Your task to perform on an android device: Open Youtube and go to "Your channel" Image 0: 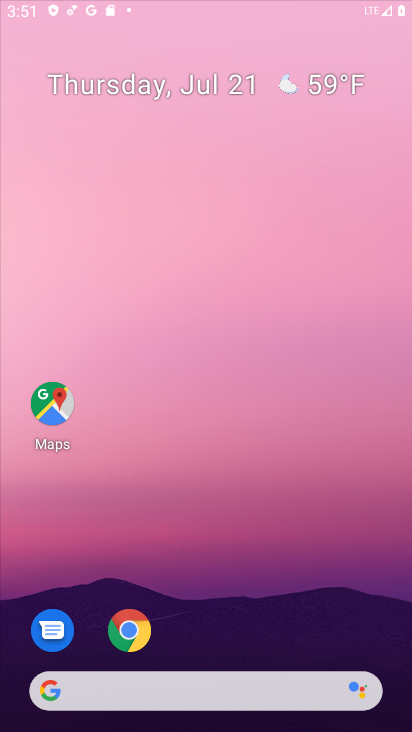
Step 0: click (190, 196)
Your task to perform on an android device: Open Youtube and go to "Your channel" Image 1: 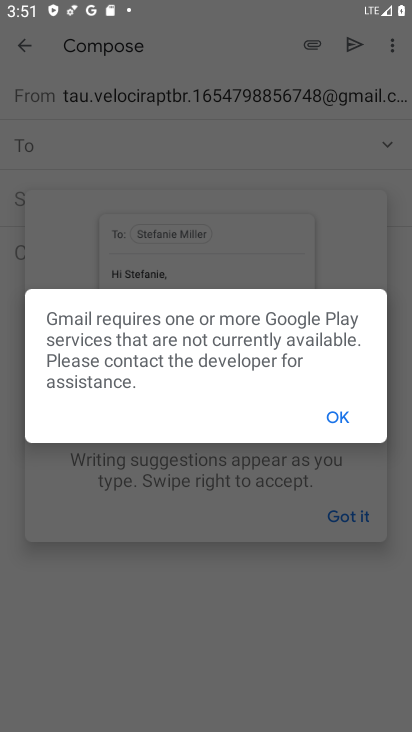
Step 1: click (323, 412)
Your task to perform on an android device: Open Youtube and go to "Your channel" Image 2: 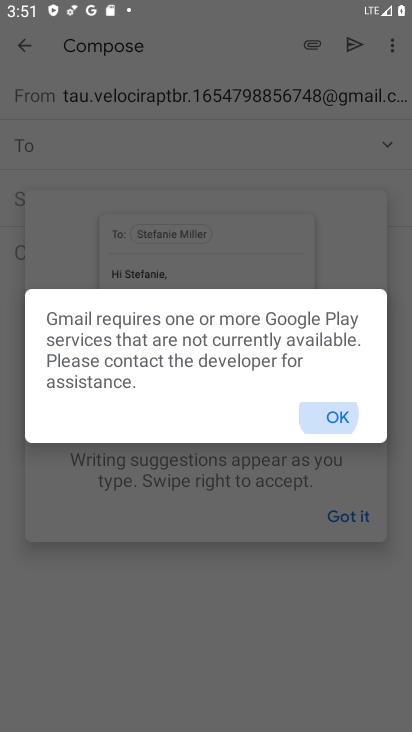
Step 2: click (323, 409)
Your task to perform on an android device: Open Youtube and go to "Your channel" Image 3: 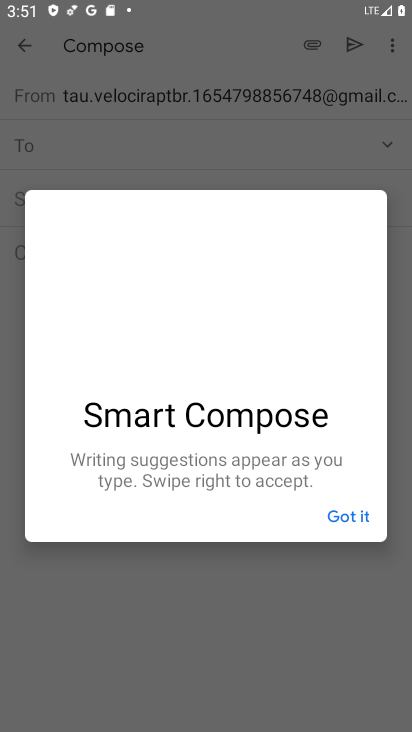
Step 3: click (338, 503)
Your task to perform on an android device: Open Youtube and go to "Your channel" Image 4: 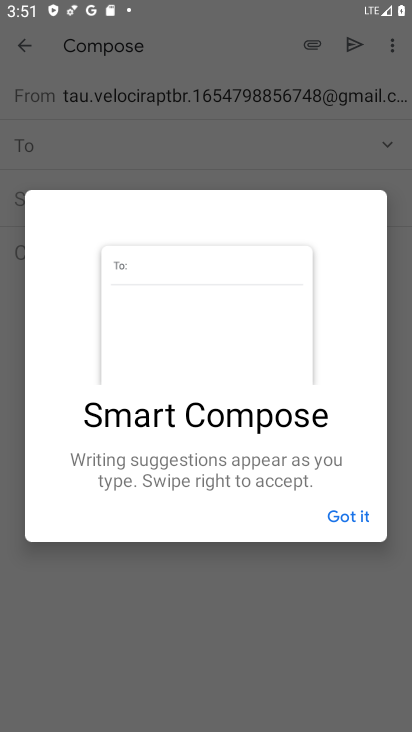
Step 4: click (338, 503)
Your task to perform on an android device: Open Youtube and go to "Your channel" Image 5: 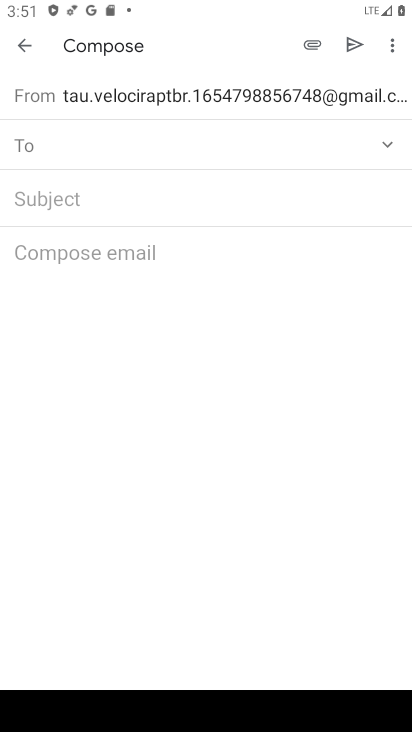
Step 5: click (26, 43)
Your task to perform on an android device: Open Youtube and go to "Your channel" Image 6: 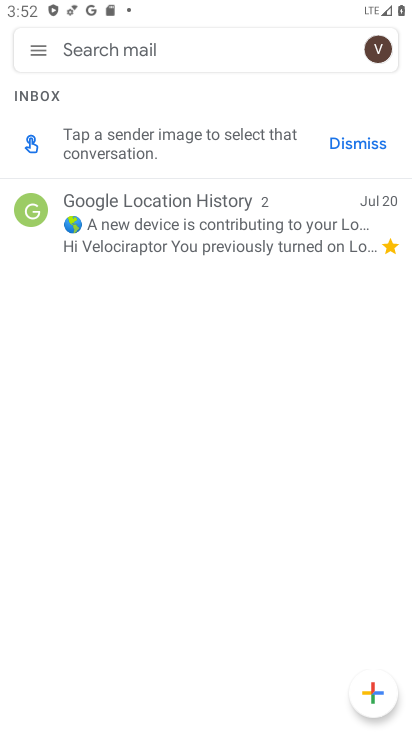
Step 6: press back button
Your task to perform on an android device: Open Youtube and go to "Your channel" Image 7: 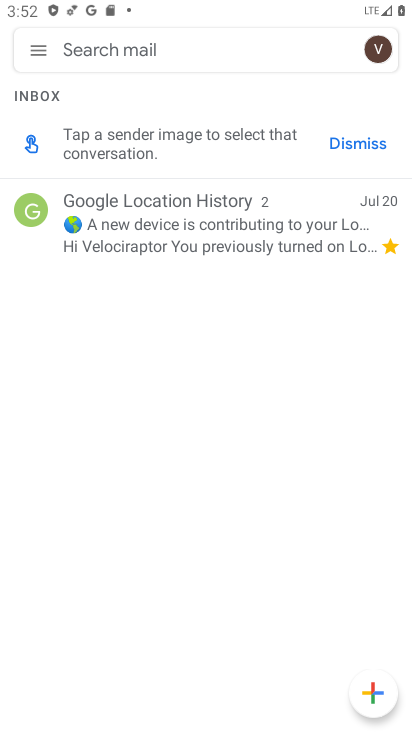
Step 7: press back button
Your task to perform on an android device: Open Youtube and go to "Your channel" Image 8: 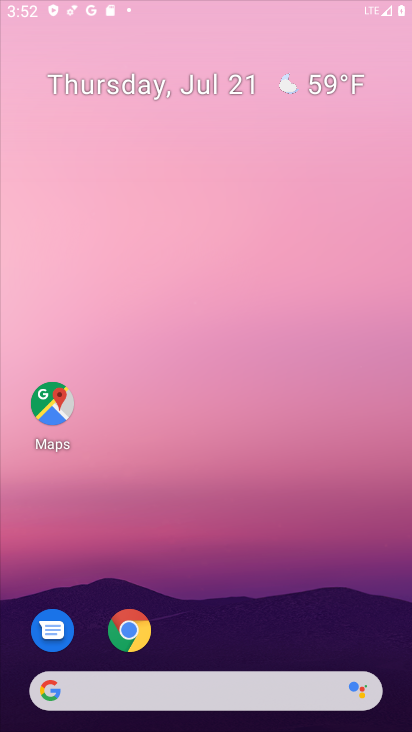
Step 8: press back button
Your task to perform on an android device: Open Youtube and go to "Your channel" Image 9: 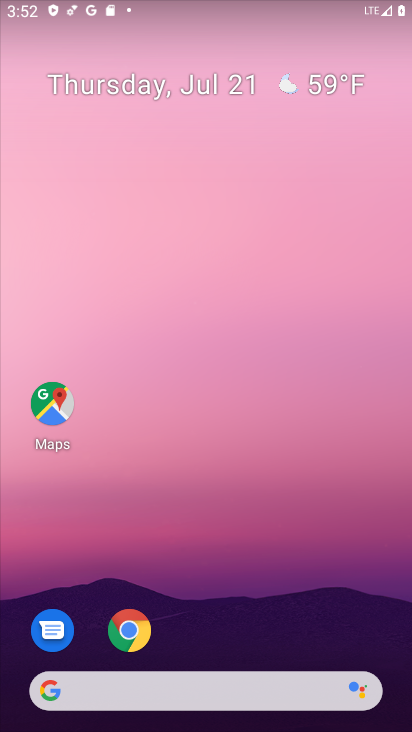
Step 9: drag from (209, 593) to (185, 53)
Your task to perform on an android device: Open Youtube and go to "Your channel" Image 10: 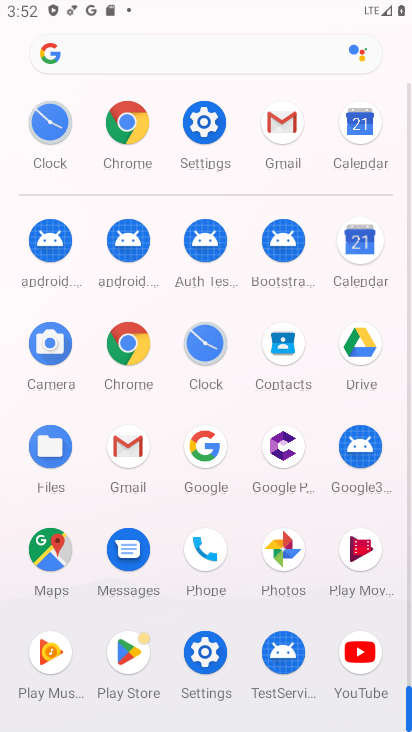
Step 10: click (365, 653)
Your task to perform on an android device: Open Youtube and go to "Your channel" Image 11: 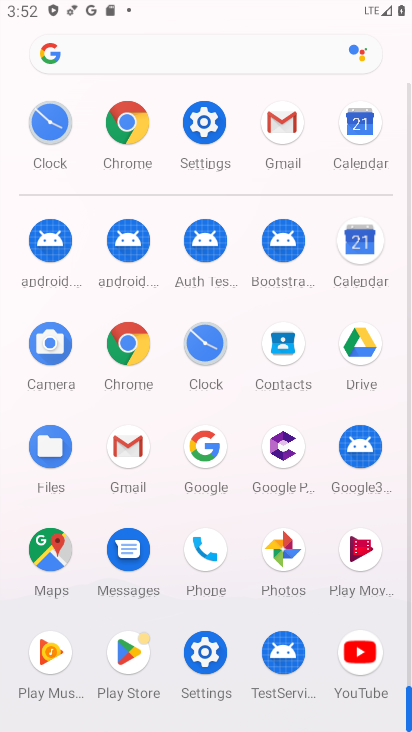
Step 11: click (369, 656)
Your task to perform on an android device: Open Youtube and go to "Your channel" Image 12: 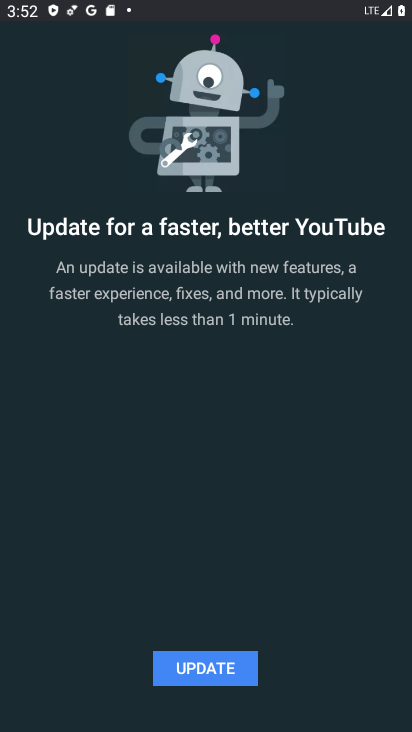
Step 12: click (213, 659)
Your task to perform on an android device: Open Youtube and go to "Your channel" Image 13: 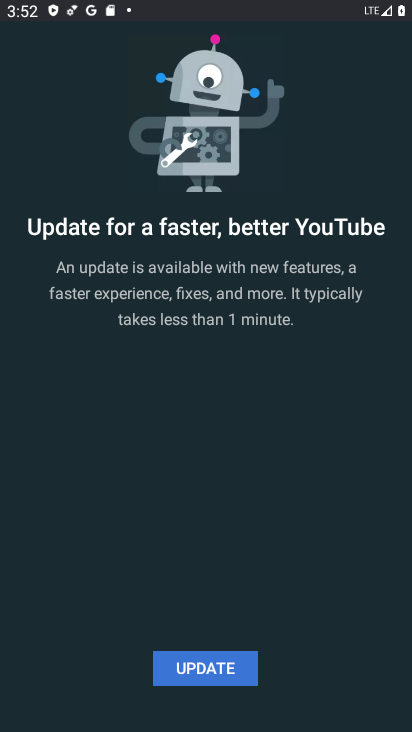
Step 13: click (211, 654)
Your task to perform on an android device: Open Youtube and go to "Your channel" Image 14: 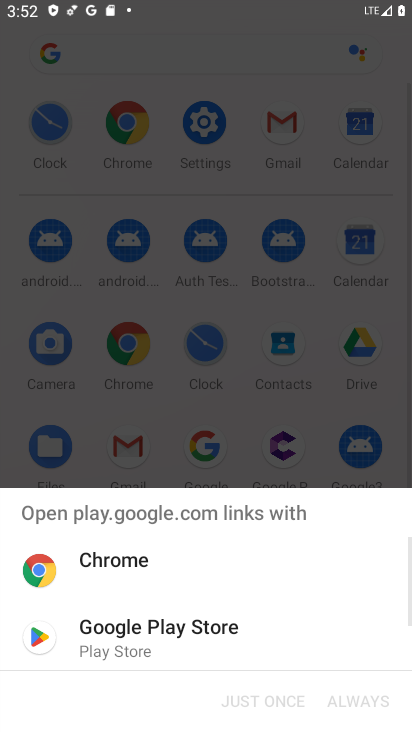
Step 14: click (121, 630)
Your task to perform on an android device: Open Youtube and go to "Your channel" Image 15: 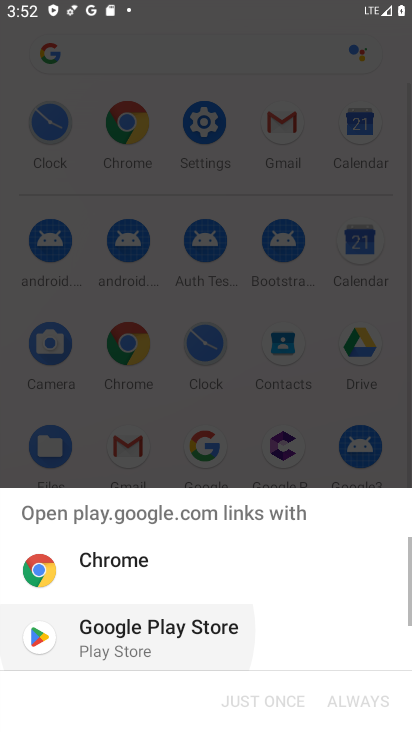
Step 15: click (121, 631)
Your task to perform on an android device: Open Youtube and go to "Your channel" Image 16: 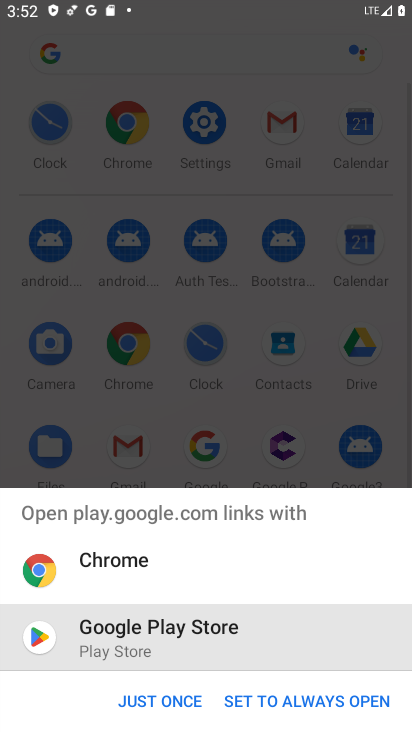
Step 16: click (157, 703)
Your task to perform on an android device: Open Youtube and go to "Your channel" Image 17: 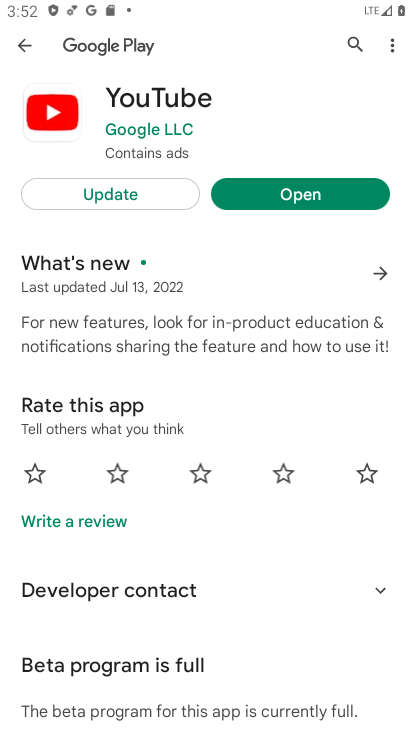
Step 17: click (110, 206)
Your task to perform on an android device: Open Youtube and go to "Your channel" Image 18: 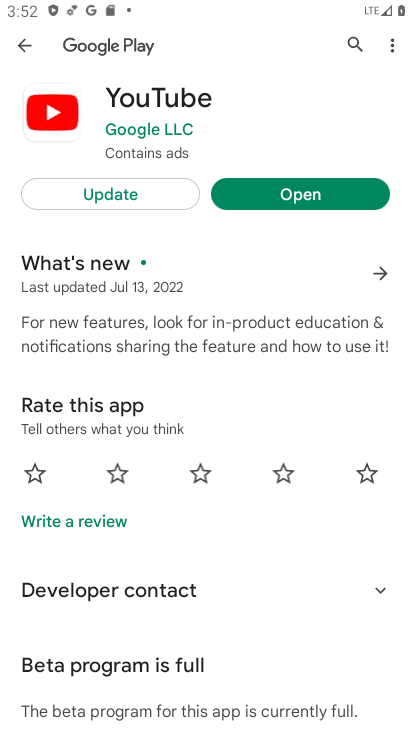
Step 18: click (120, 194)
Your task to perform on an android device: Open Youtube and go to "Your channel" Image 19: 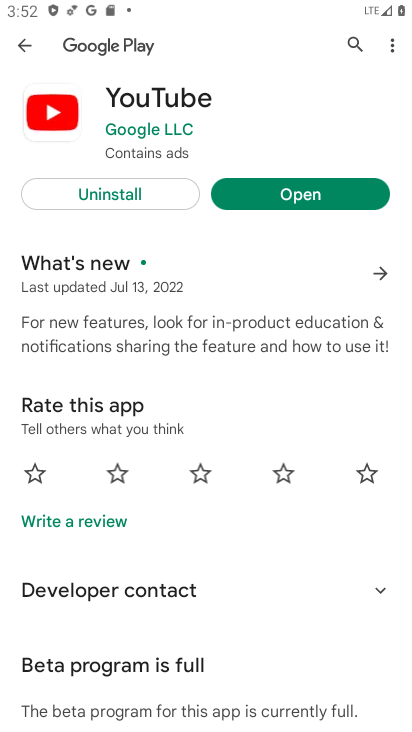
Step 19: click (308, 195)
Your task to perform on an android device: Open Youtube and go to "Your channel" Image 20: 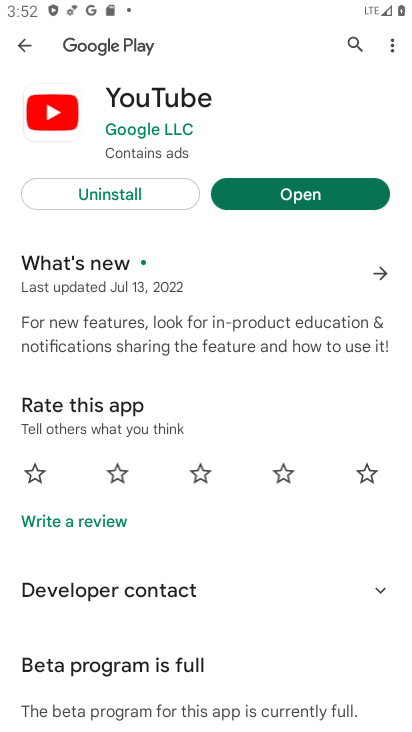
Step 20: click (303, 192)
Your task to perform on an android device: Open Youtube and go to "Your channel" Image 21: 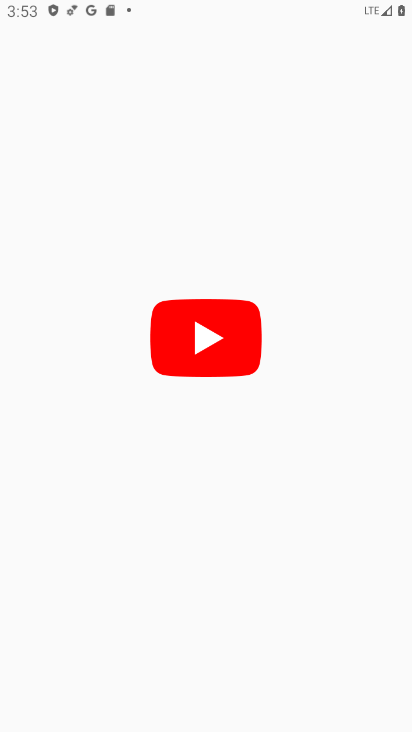
Step 21: task complete